Your task to perform on an android device: turn off airplane mode Image 0: 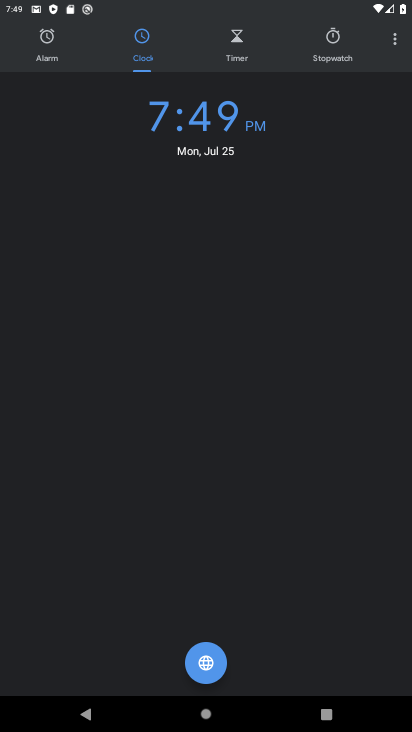
Step 0: press home button
Your task to perform on an android device: turn off airplane mode Image 1: 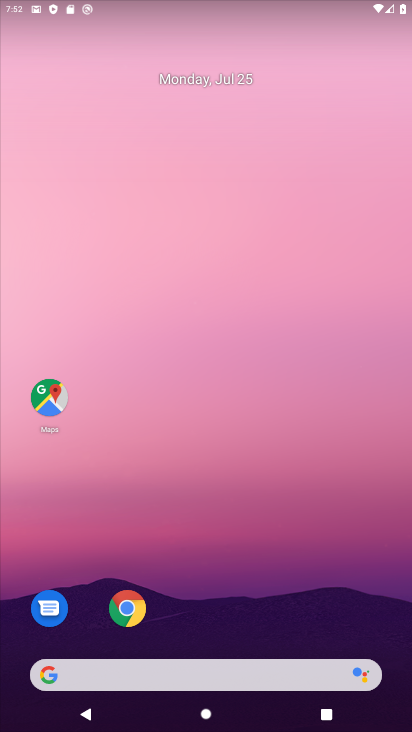
Step 1: drag from (263, 701) to (125, 3)
Your task to perform on an android device: turn off airplane mode Image 2: 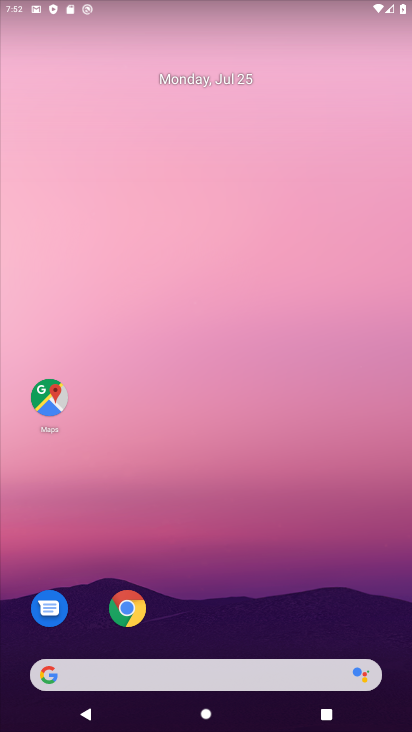
Step 2: drag from (273, 717) to (302, 65)
Your task to perform on an android device: turn off airplane mode Image 3: 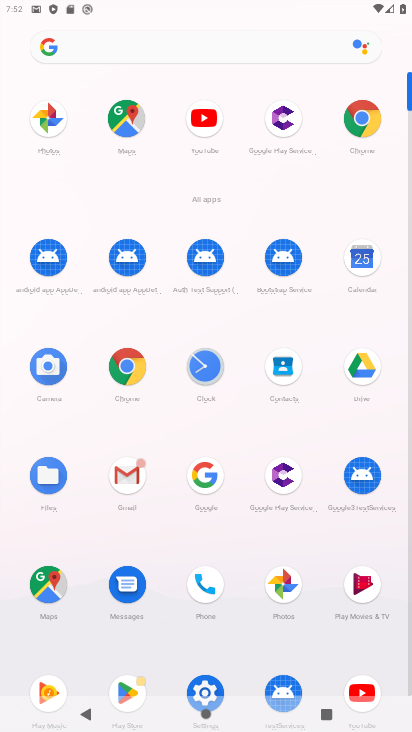
Step 3: click (195, 677)
Your task to perform on an android device: turn off airplane mode Image 4: 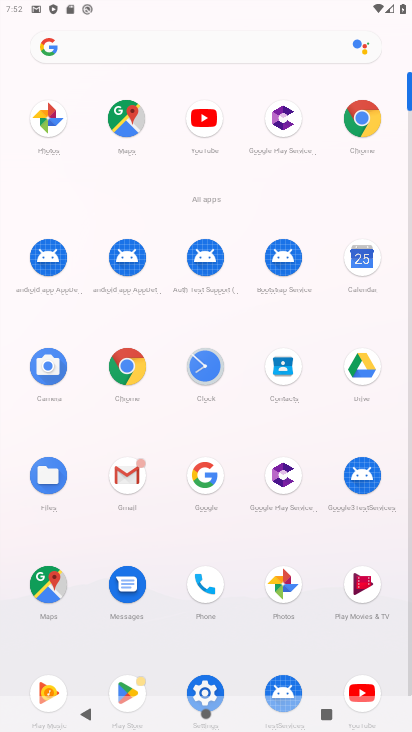
Step 4: click (195, 677)
Your task to perform on an android device: turn off airplane mode Image 5: 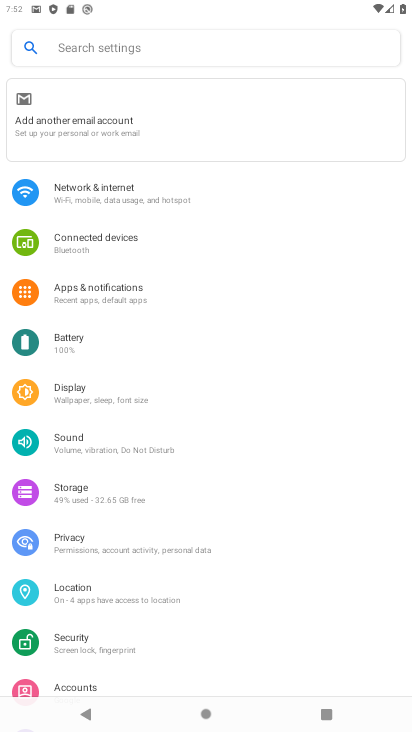
Step 5: click (129, 192)
Your task to perform on an android device: turn off airplane mode Image 6: 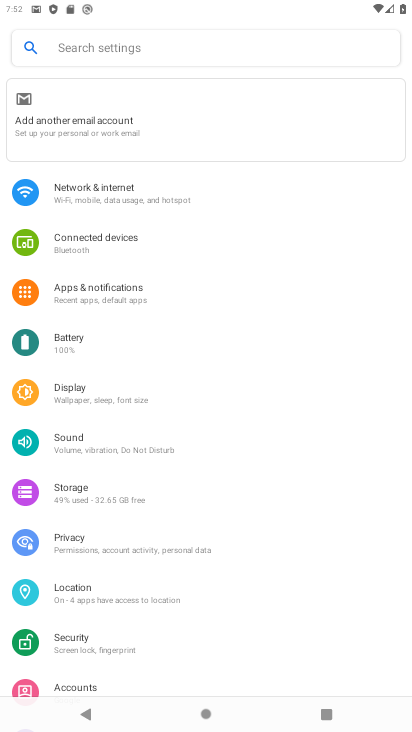
Step 6: click (129, 192)
Your task to perform on an android device: turn off airplane mode Image 7: 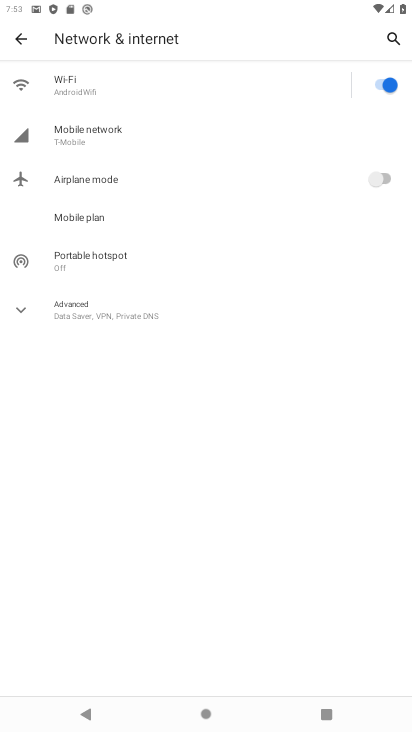
Step 7: task complete